Your task to perform on an android device: change the clock display to digital Image 0: 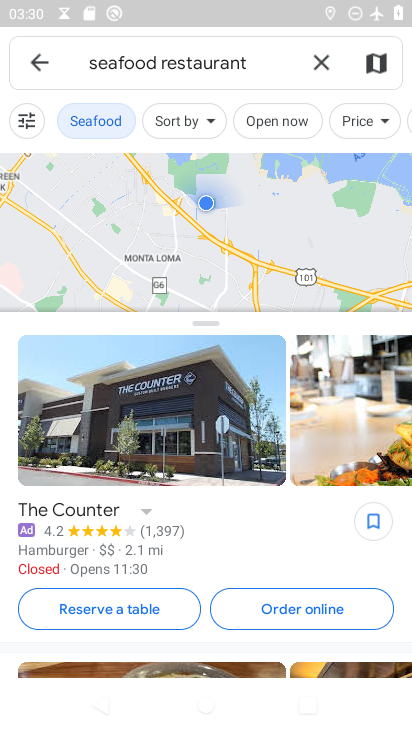
Step 0: press home button
Your task to perform on an android device: change the clock display to digital Image 1: 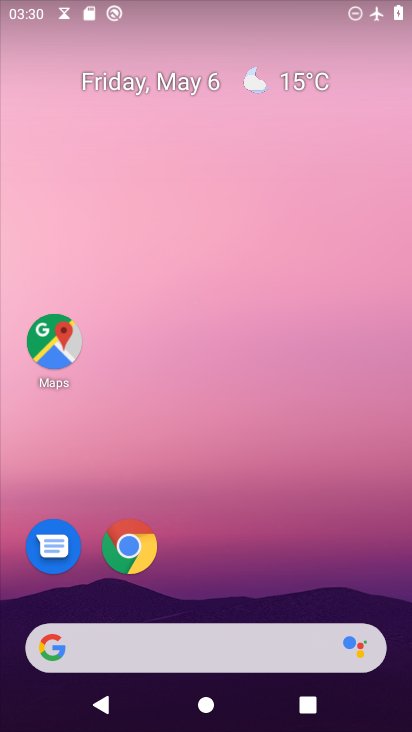
Step 1: drag from (245, 598) to (233, 151)
Your task to perform on an android device: change the clock display to digital Image 2: 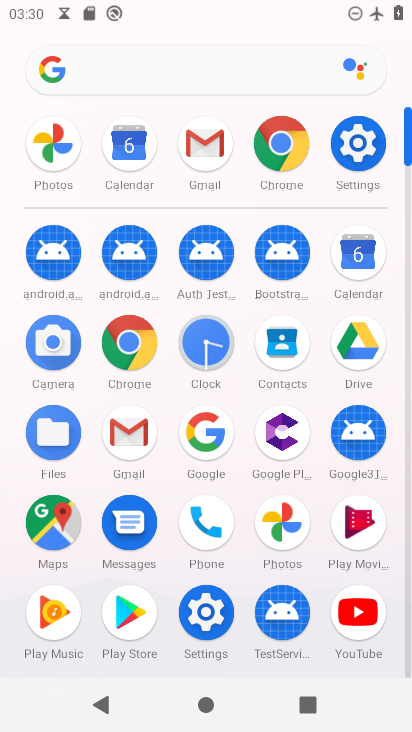
Step 2: click (294, 423)
Your task to perform on an android device: change the clock display to digital Image 3: 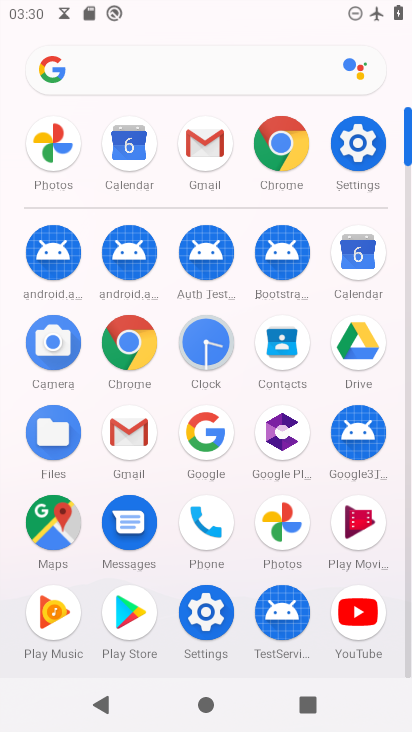
Step 3: click (219, 341)
Your task to perform on an android device: change the clock display to digital Image 4: 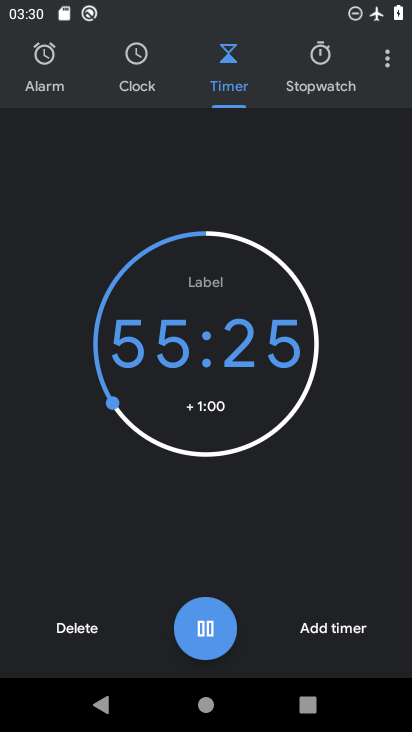
Step 4: click (386, 56)
Your task to perform on an android device: change the clock display to digital Image 5: 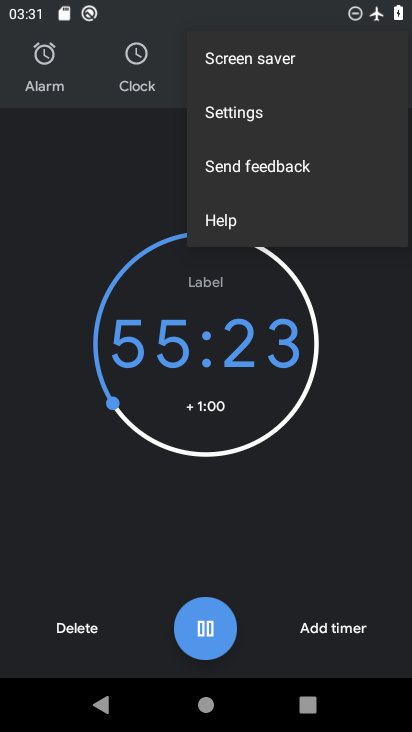
Step 5: click (275, 123)
Your task to perform on an android device: change the clock display to digital Image 6: 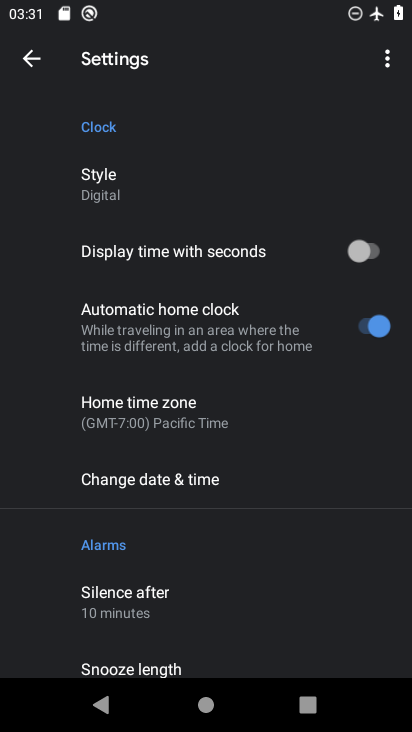
Step 6: click (102, 191)
Your task to perform on an android device: change the clock display to digital Image 7: 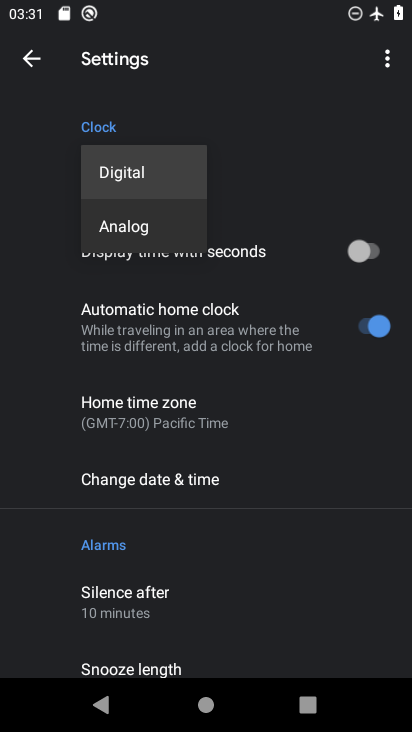
Step 7: click (123, 177)
Your task to perform on an android device: change the clock display to digital Image 8: 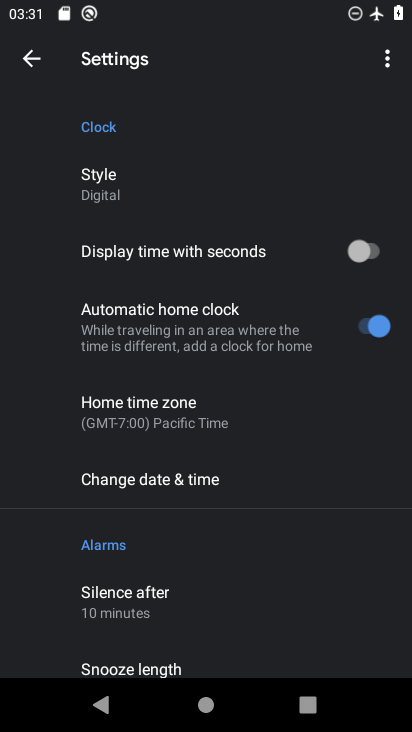
Step 8: task complete